Your task to perform on an android device: Open Youtube and go to "Your channel" Image 0: 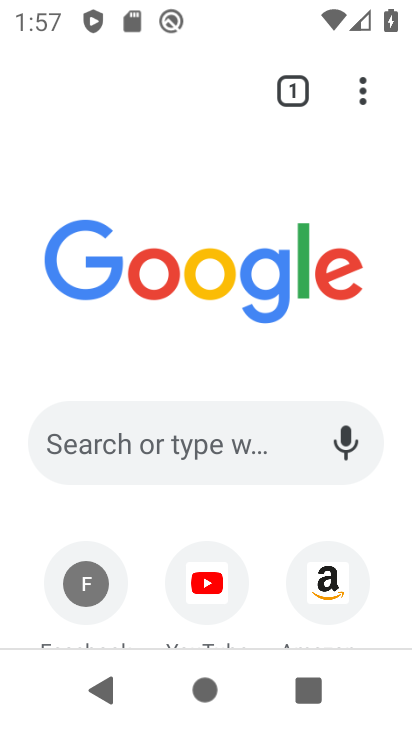
Step 0: drag from (212, 696) to (409, 386)
Your task to perform on an android device: Open Youtube and go to "Your channel" Image 1: 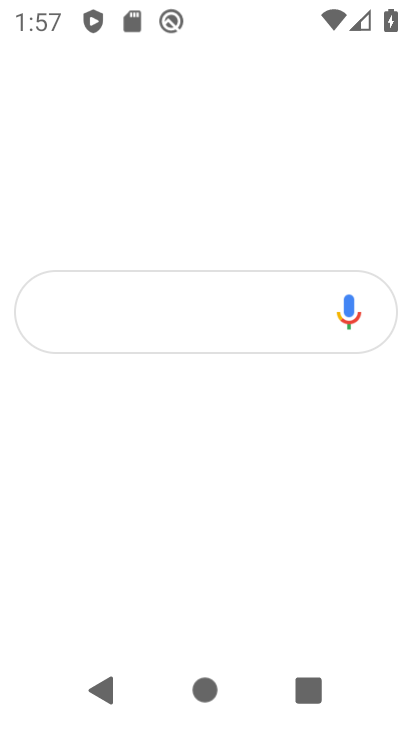
Step 1: press home button
Your task to perform on an android device: Open Youtube and go to "Your channel" Image 2: 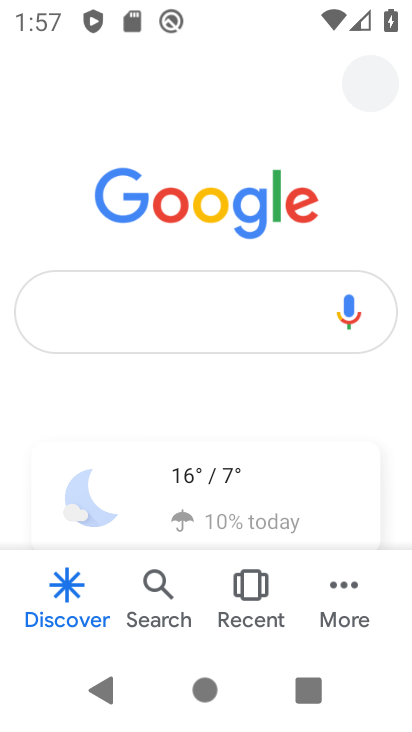
Step 2: drag from (409, 386) to (410, 423)
Your task to perform on an android device: Open Youtube and go to "Your channel" Image 3: 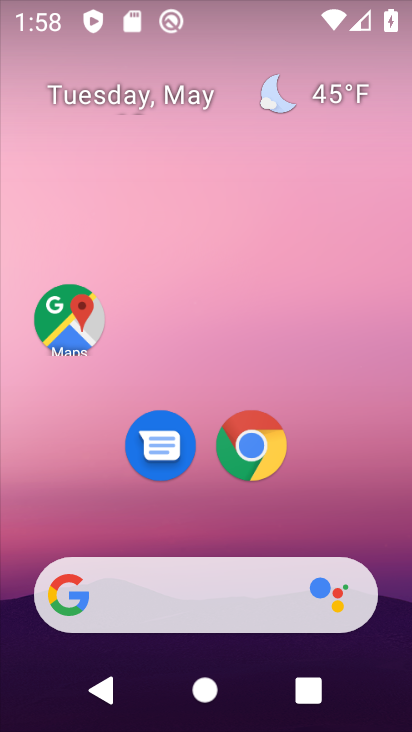
Step 3: drag from (228, 520) to (204, 56)
Your task to perform on an android device: Open Youtube and go to "Your channel" Image 4: 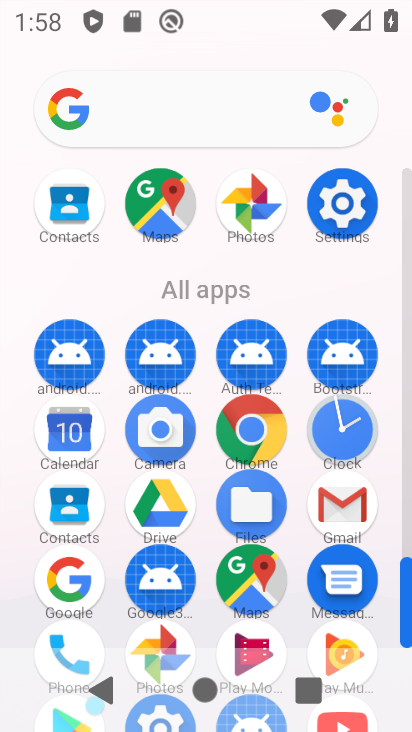
Step 4: drag from (207, 456) to (194, 14)
Your task to perform on an android device: Open Youtube and go to "Your channel" Image 5: 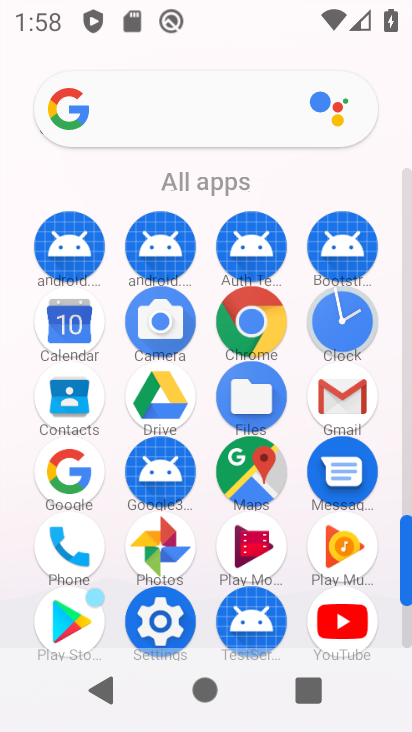
Step 5: click (333, 632)
Your task to perform on an android device: Open Youtube and go to "Your channel" Image 6: 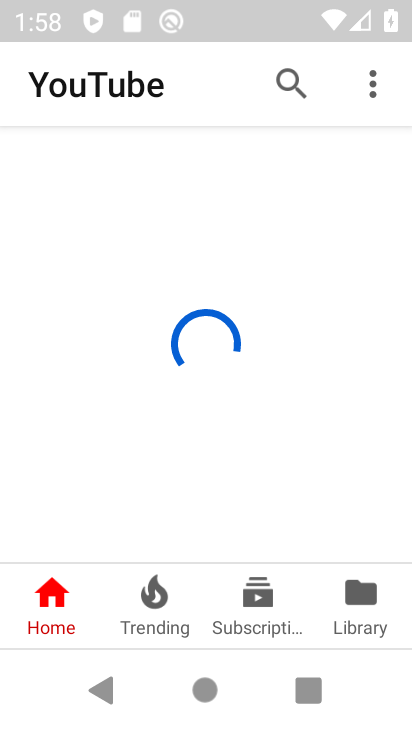
Step 6: click (227, 613)
Your task to perform on an android device: Open Youtube and go to "Your channel" Image 7: 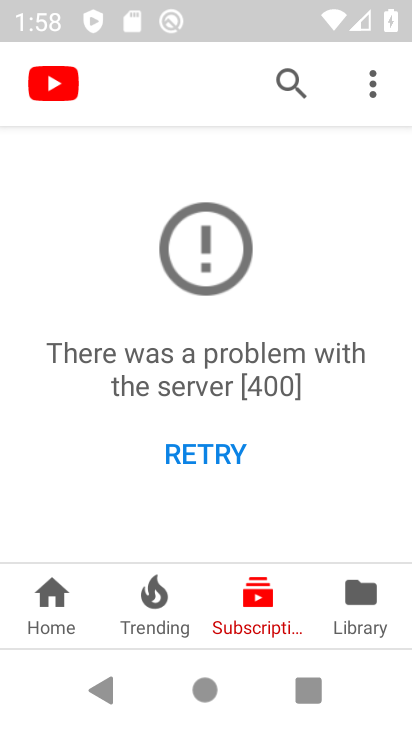
Step 7: task complete